Your task to perform on an android device: turn off notifications in google photos Image 0: 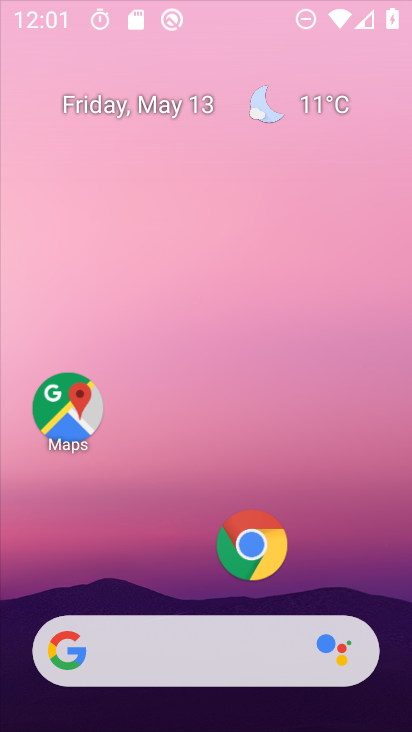
Step 0: drag from (193, 556) to (240, 14)
Your task to perform on an android device: turn off notifications in google photos Image 1: 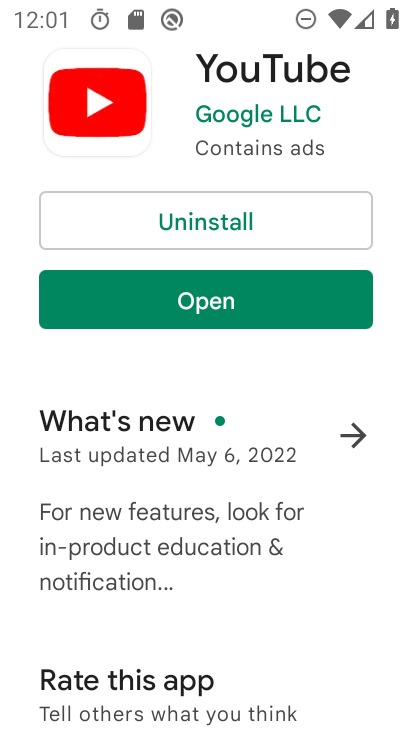
Step 1: press home button
Your task to perform on an android device: turn off notifications in google photos Image 2: 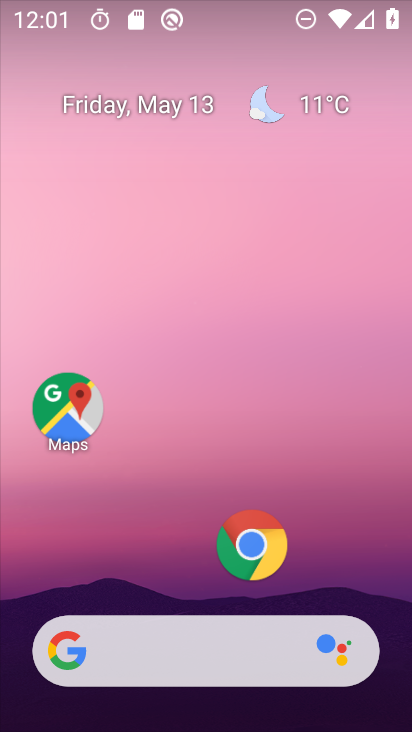
Step 2: drag from (192, 589) to (200, 59)
Your task to perform on an android device: turn off notifications in google photos Image 3: 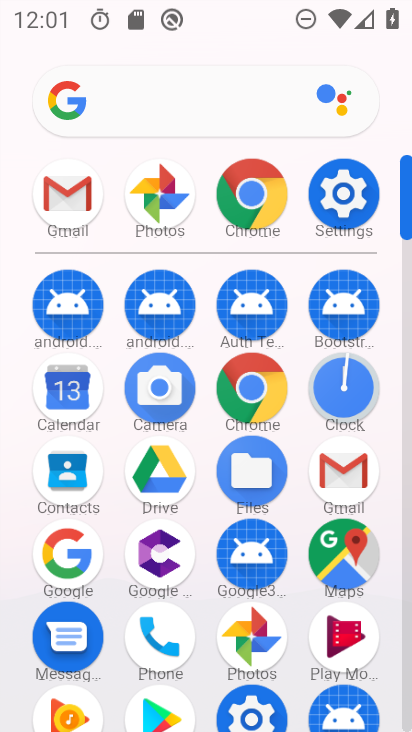
Step 3: click (247, 624)
Your task to perform on an android device: turn off notifications in google photos Image 4: 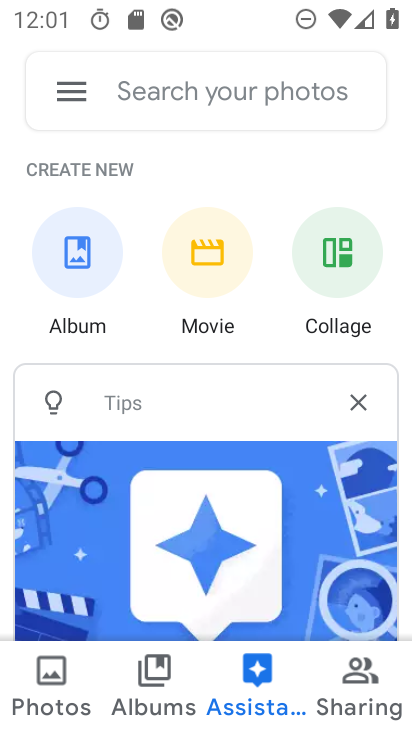
Step 4: click (63, 78)
Your task to perform on an android device: turn off notifications in google photos Image 5: 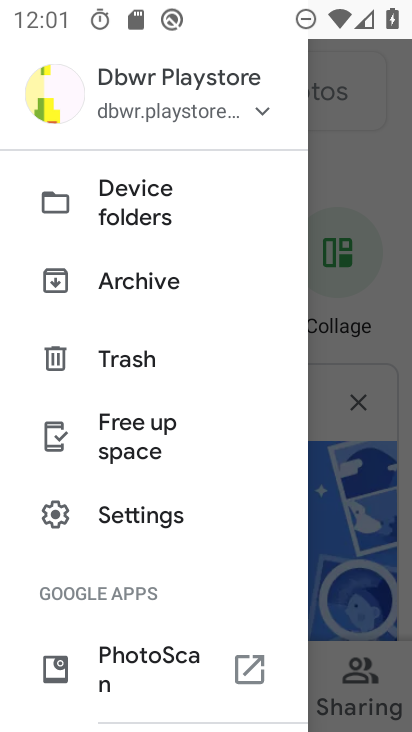
Step 5: click (187, 517)
Your task to perform on an android device: turn off notifications in google photos Image 6: 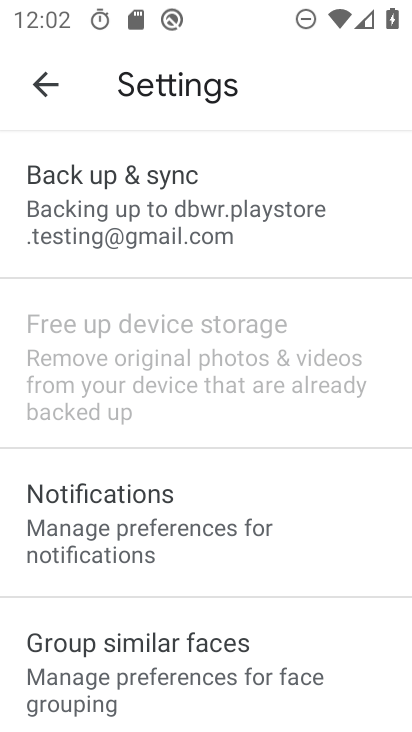
Step 6: click (195, 509)
Your task to perform on an android device: turn off notifications in google photos Image 7: 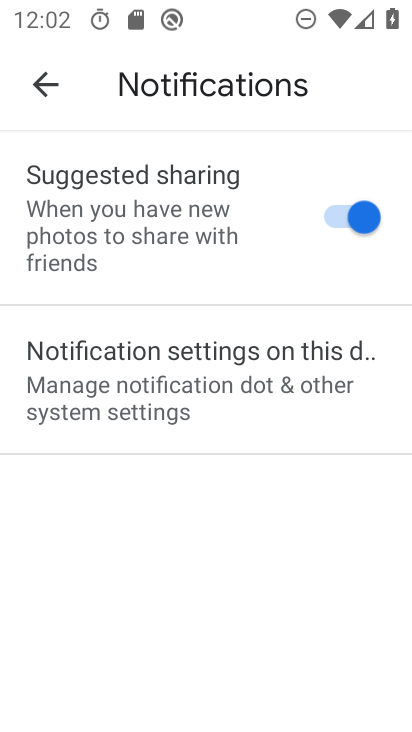
Step 7: click (203, 404)
Your task to perform on an android device: turn off notifications in google photos Image 8: 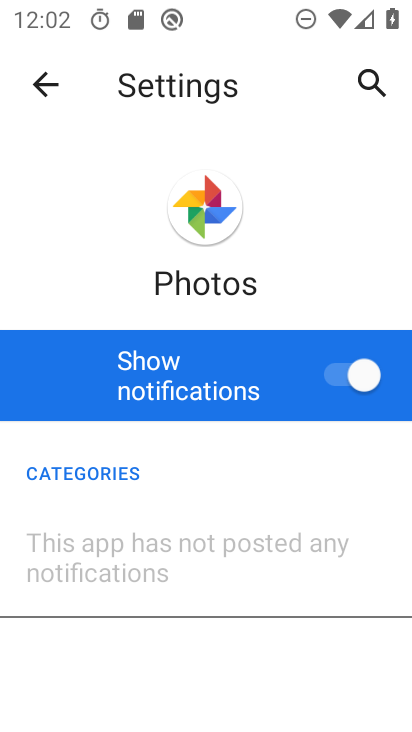
Step 8: click (335, 371)
Your task to perform on an android device: turn off notifications in google photos Image 9: 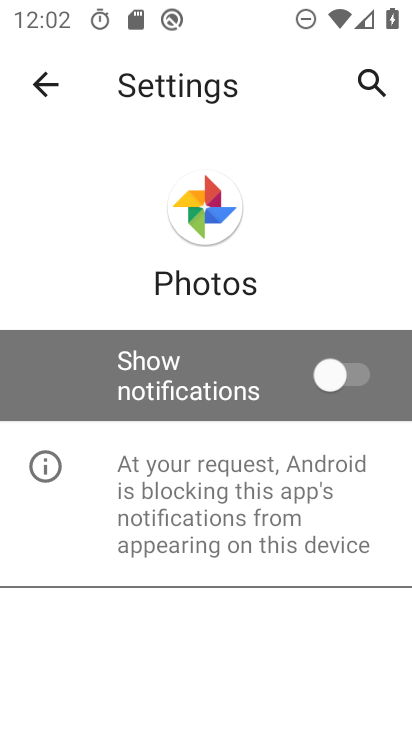
Step 9: task complete